Your task to perform on an android device: Open privacy settings Image 0: 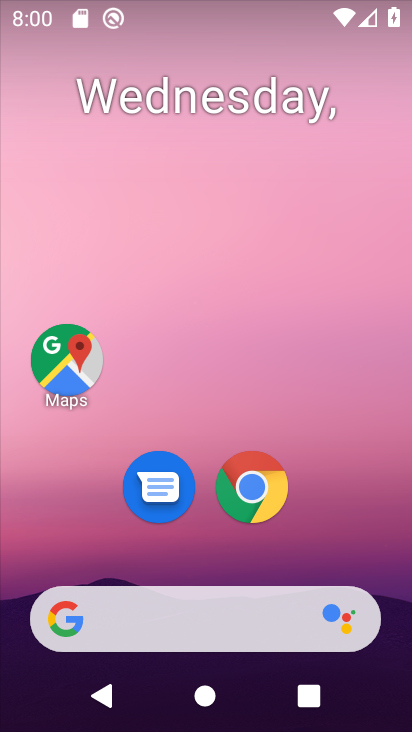
Step 0: drag from (325, 540) to (283, 22)
Your task to perform on an android device: Open privacy settings Image 1: 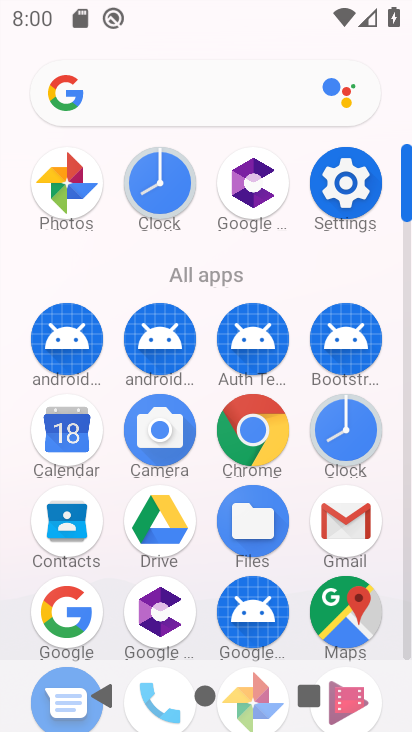
Step 1: click (347, 183)
Your task to perform on an android device: Open privacy settings Image 2: 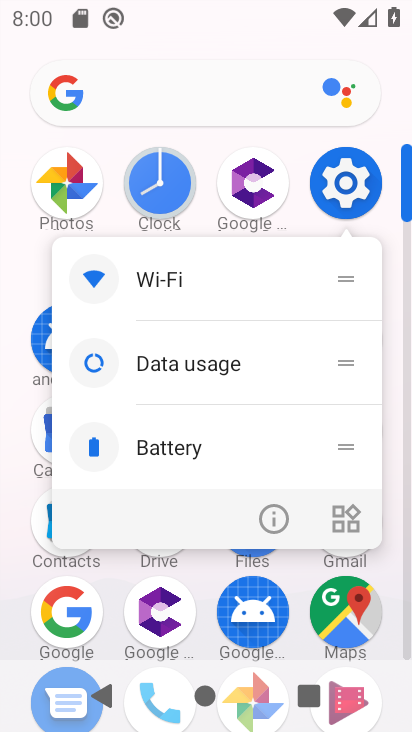
Step 2: click (347, 183)
Your task to perform on an android device: Open privacy settings Image 3: 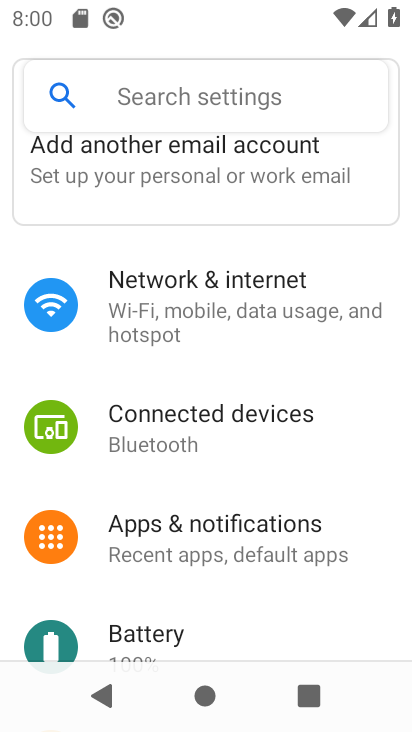
Step 3: drag from (176, 477) to (190, 365)
Your task to perform on an android device: Open privacy settings Image 4: 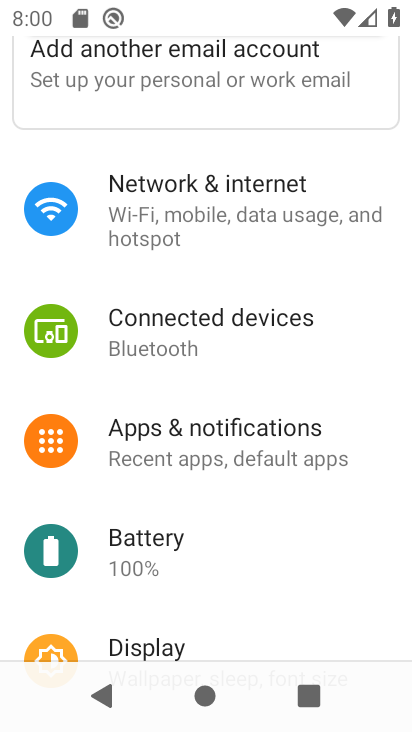
Step 4: drag from (163, 498) to (174, 360)
Your task to perform on an android device: Open privacy settings Image 5: 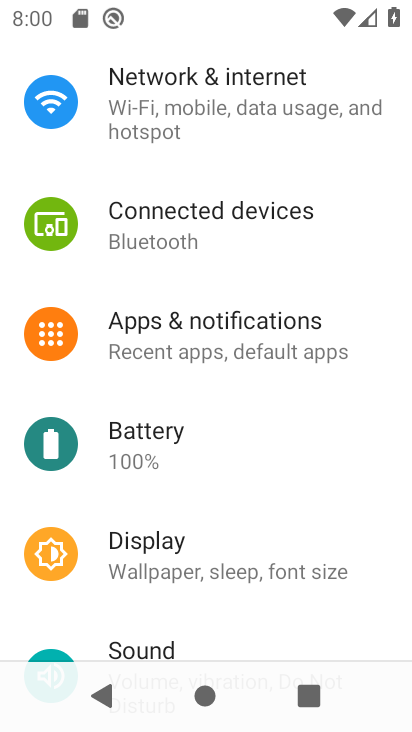
Step 5: drag from (174, 506) to (222, 381)
Your task to perform on an android device: Open privacy settings Image 6: 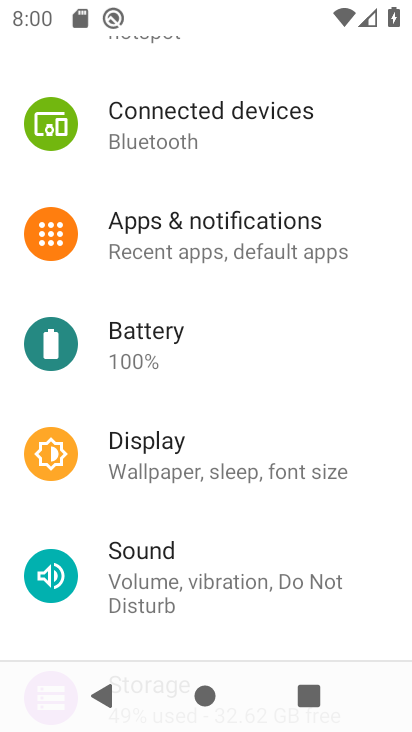
Step 6: drag from (202, 531) to (274, 356)
Your task to perform on an android device: Open privacy settings Image 7: 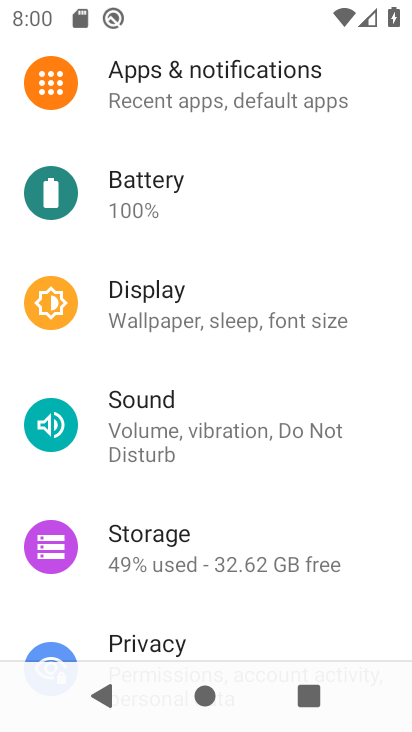
Step 7: drag from (211, 486) to (282, 298)
Your task to perform on an android device: Open privacy settings Image 8: 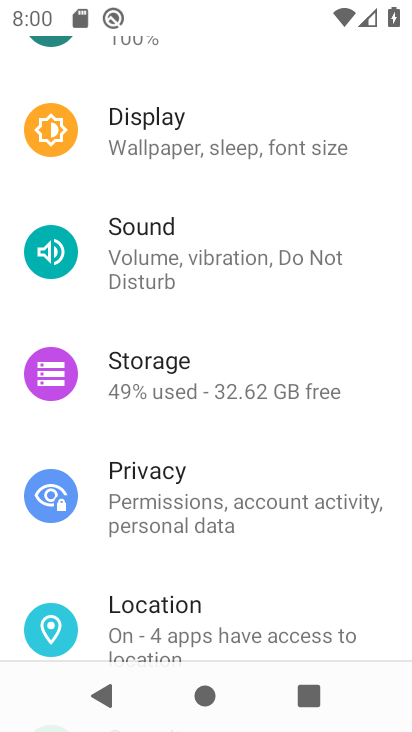
Step 8: click (158, 499)
Your task to perform on an android device: Open privacy settings Image 9: 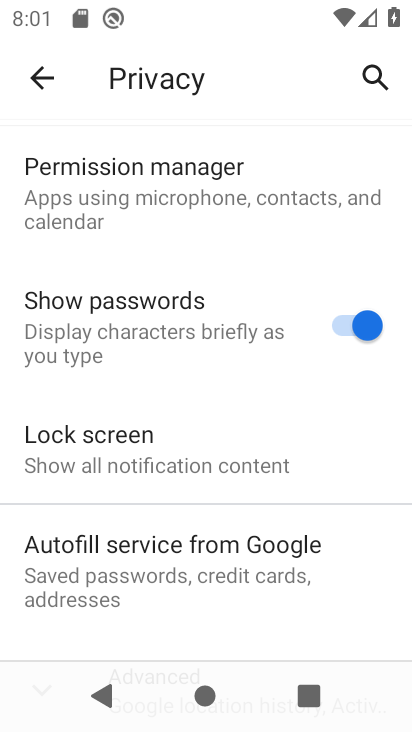
Step 9: task complete